Your task to perform on an android device: turn off javascript in the chrome app Image 0: 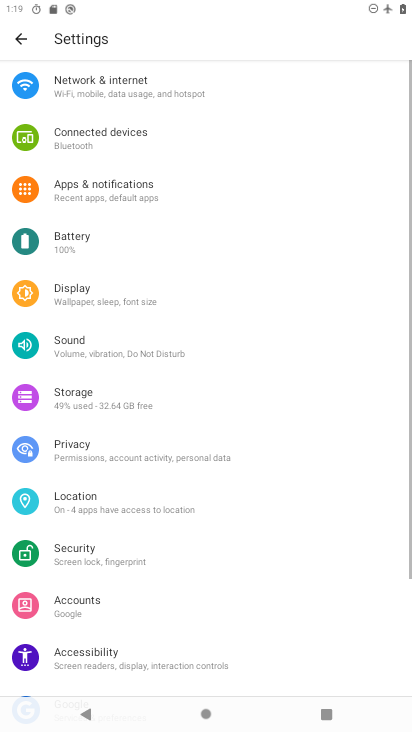
Step 0: press home button
Your task to perform on an android device: turn off javascript in the chrome app Image 1: 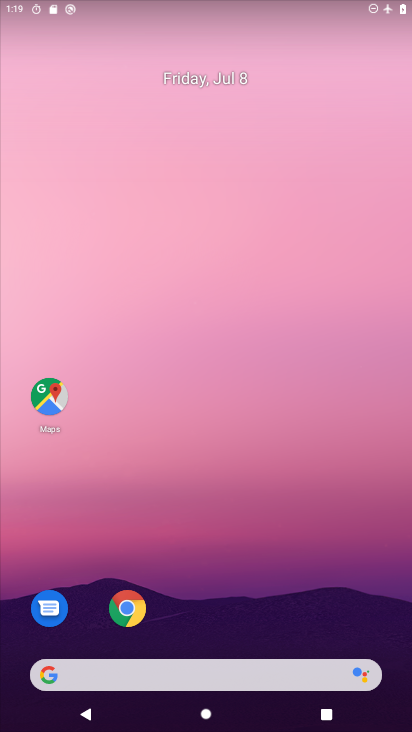
Step 1: click (125, 604)
Your task to perform on an android device: turn off javascript in the chrome app Image 2: 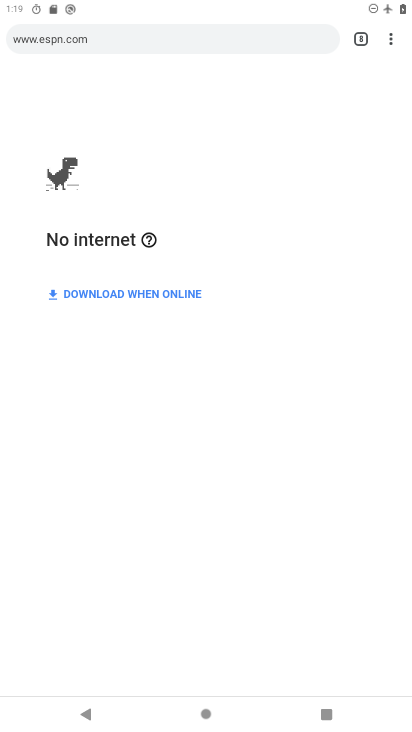
Step 2: click (390, 42)
Your task to perform on an android device: turn off javascript in the chrome app Image 3: 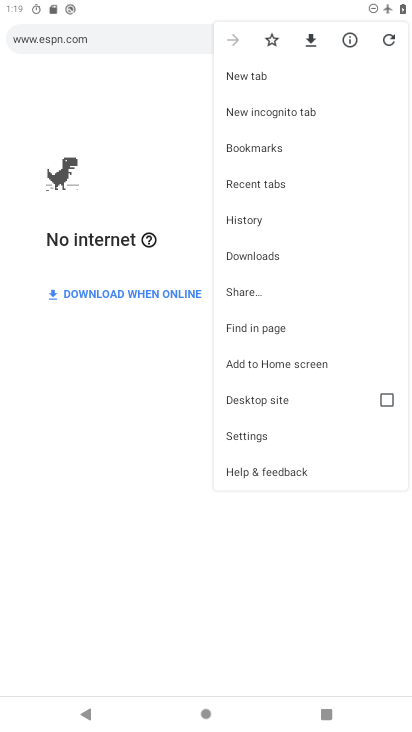
Step 3: click (252, 431)
Your task to perform on an android device: turn off javascript in the chrome app Image 4: 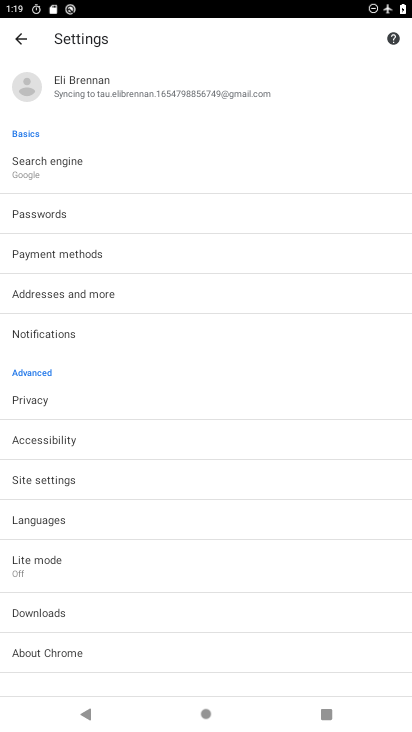
Step 4: click (46, 476)
Your task to perform on an android device: turn off javascript in the chrome app Image 5: 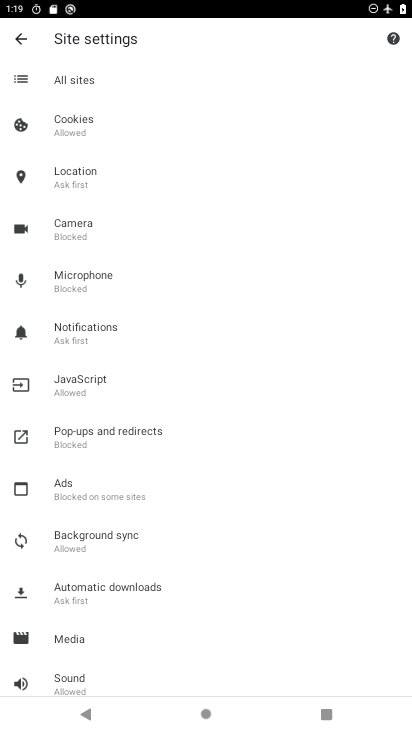
Step 5: click (67, 382)
Your task to perform on an android device: turn off javascript in the chrome app Image 6: 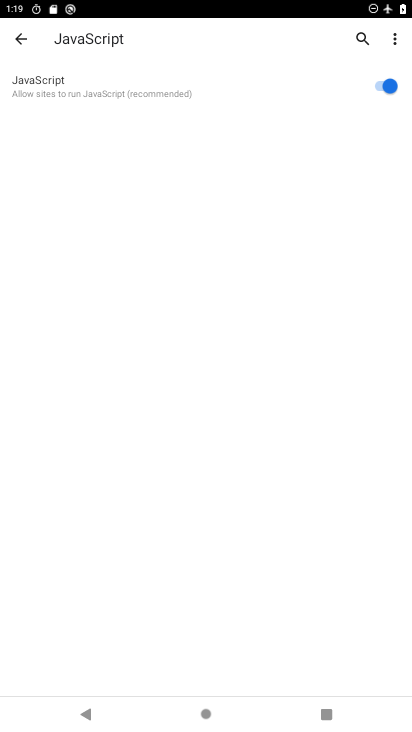
Step 6: click (381, 83)
Your task to perform on an android device: turn off javascript in the chrome app Image 7: 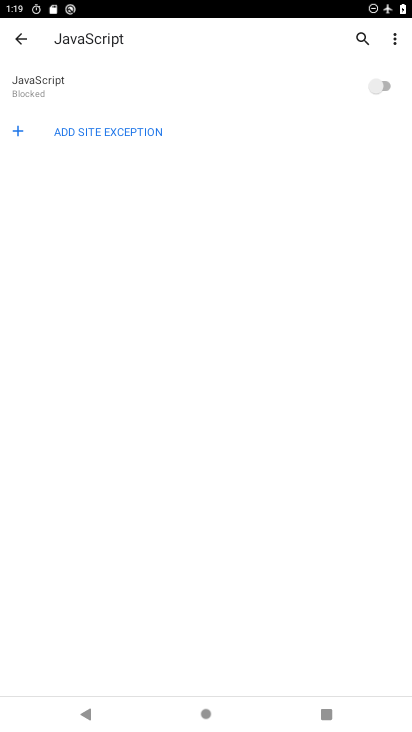
Step 7: task complete